Your task to perform on an android device: see tabs open on other devices in the chrome app Image 0: 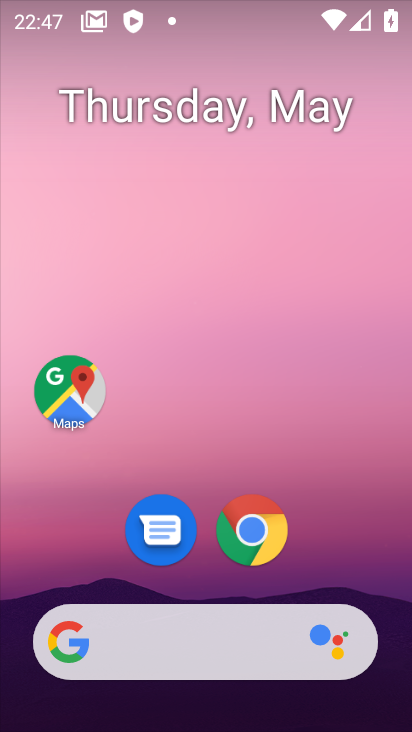
Step 0: click (259, 546)
Your task to perform on an android device: see tabs open on other devices in the chrome app Image 1: 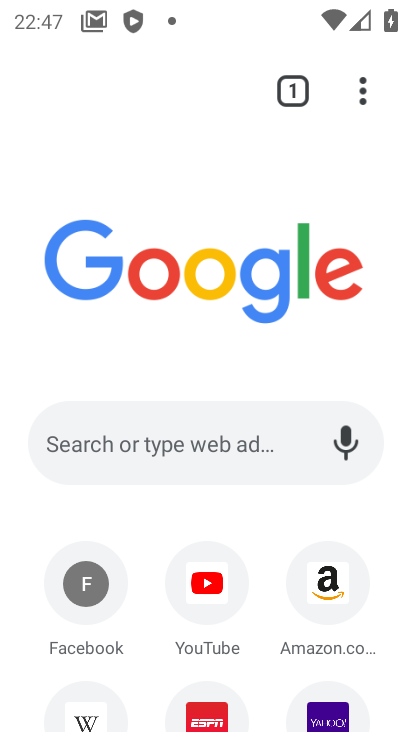
Step 1: click (364, 98)
Your task to perform on an android device: see tabs open on other devices in the chrome app Image 2: 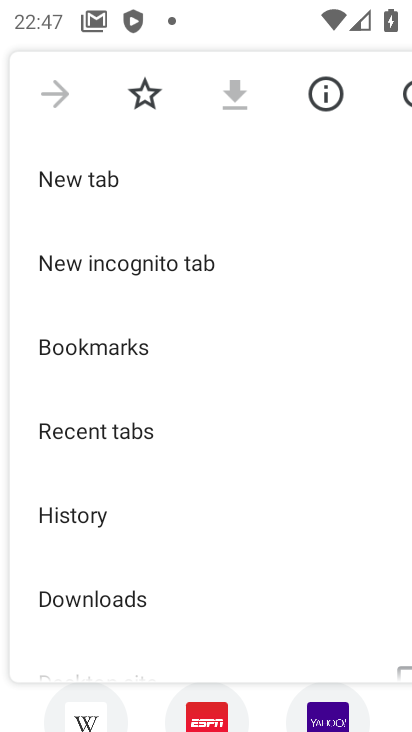
Step 2: click (101, 426)
Your task to perform on an android device: see tabs open on other devices in the chrome app Image 3: 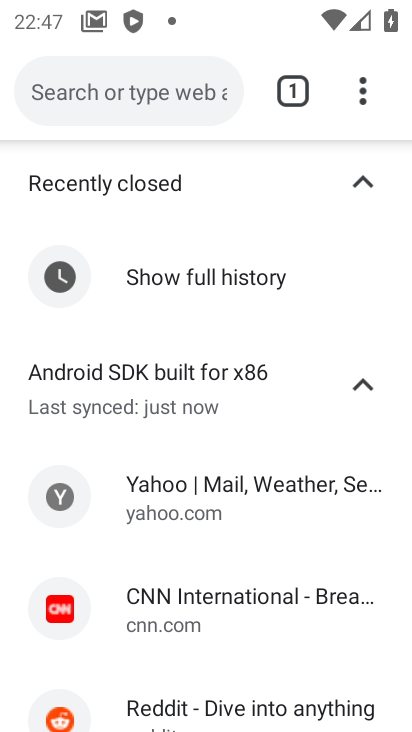
Step 3: task complete